Your task to perform on an android device: open chrome privacy settings Image 0: 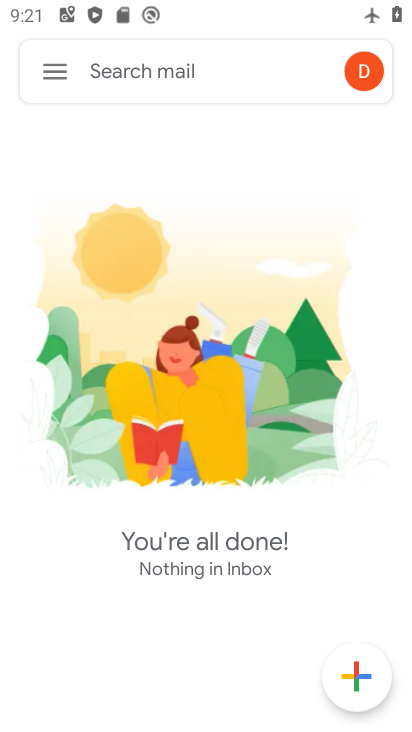
Step 0: press home button
Your task to perform on an android device: open chrome privacy settings Image 1: 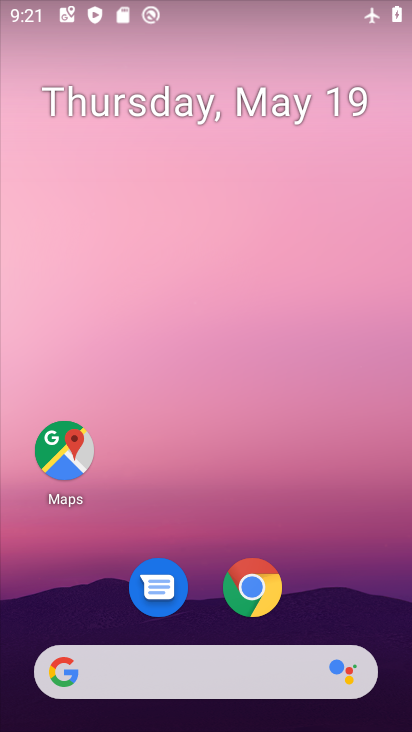
Step 1: click (247, 614)
Your task to perform on an android device: open chrome privacy settings Image 2: 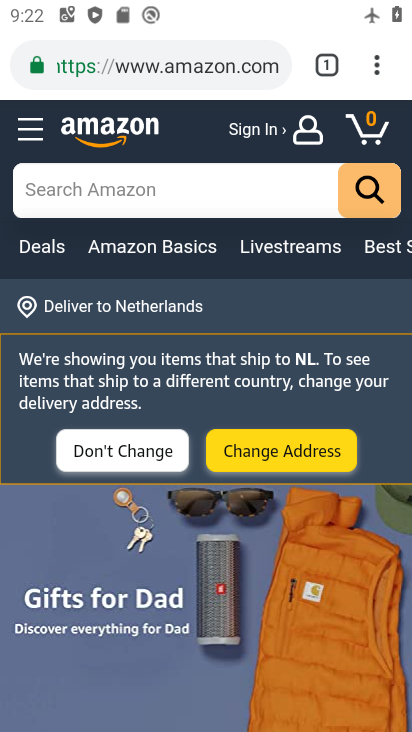
Step 2: drag from (371, 66) to (167, 630)
Your task to perform on an android device: open chrome privacy settings Image 3: 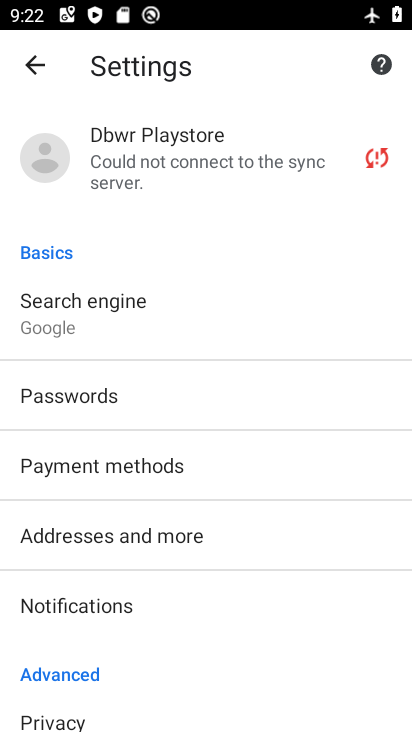
Step 3: drag from (104, 604) to (99, 288)
Your task to perform on an android device: open chrome privacy settings Image 4: 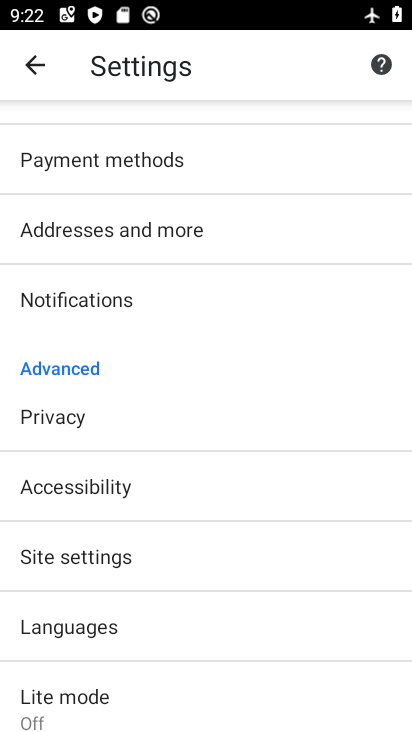
Step 4: click (54, 401)
Your task to perform on an android device: open chrome privacy settings Image 5: 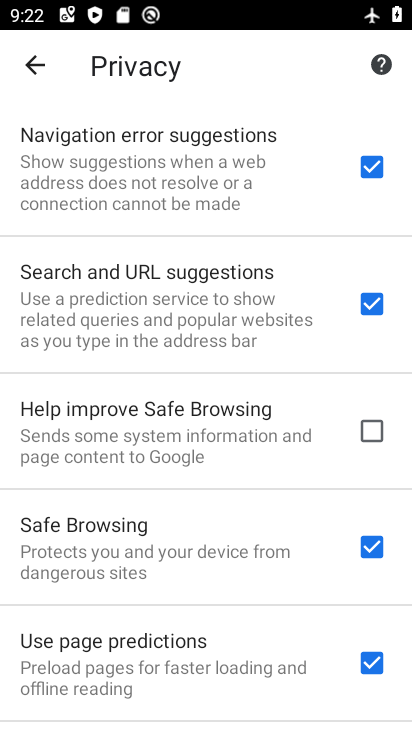
Step 5: task complete